Your task to perform on an android device: What's on my calendar today? Image 0: 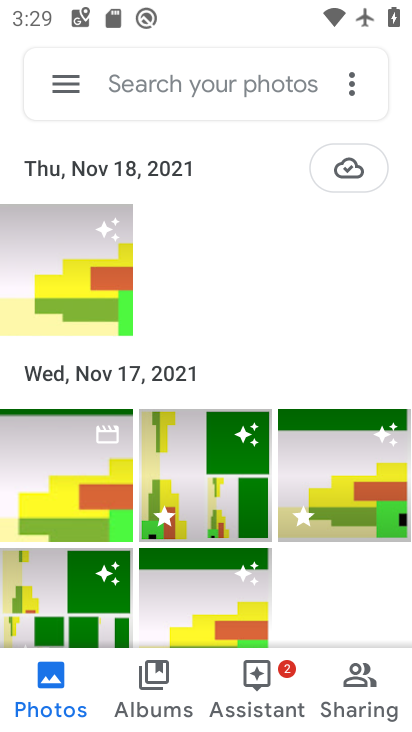
Step 0: press home button
Your task to perform on an android device: What's on my calendar today? Image 1: 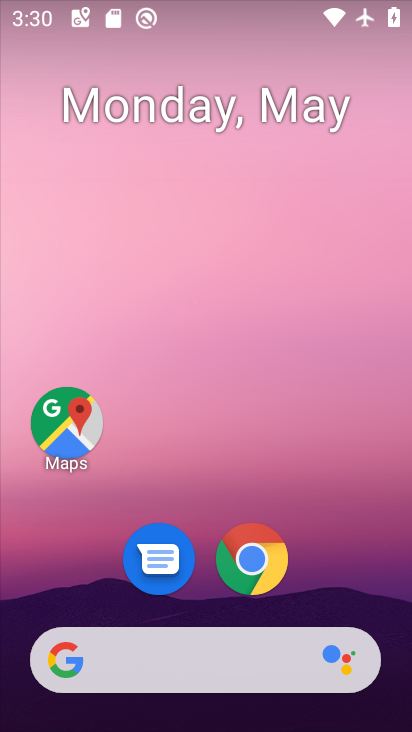
Step 1: drag from (300, 575) to (297, 95)
Your task to perform on an android device: What's on my calendar today? Image 2: 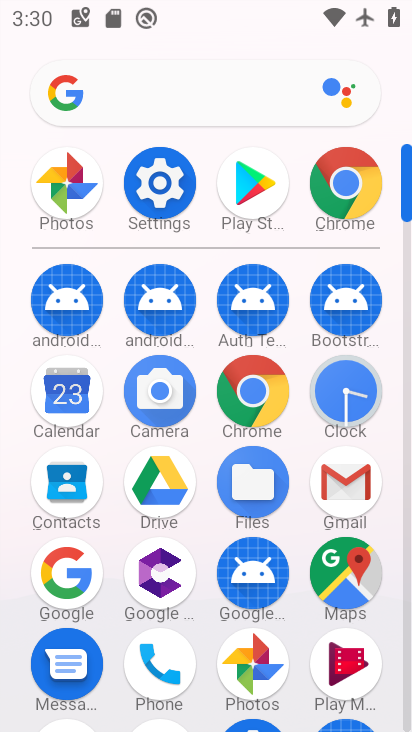
Step 2: click (71, 419)
Your task to perform on an android device: What's on my calendar today? Image 3: 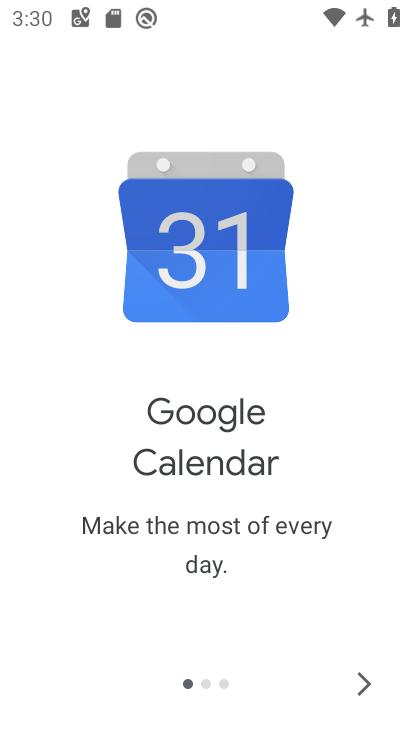
Step 3: click (370, 689)
Your task to perform on an android device: What's on my calendar today? Image 4: 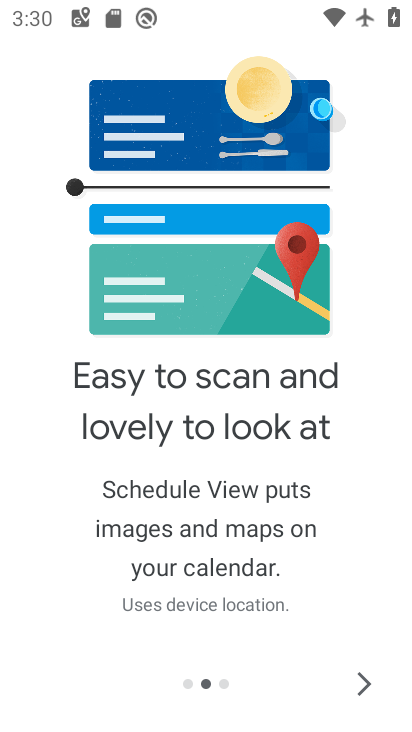
Step 4: click (369, 687)
Your task to perform on an android device: What's on my calendar today? Image 5: 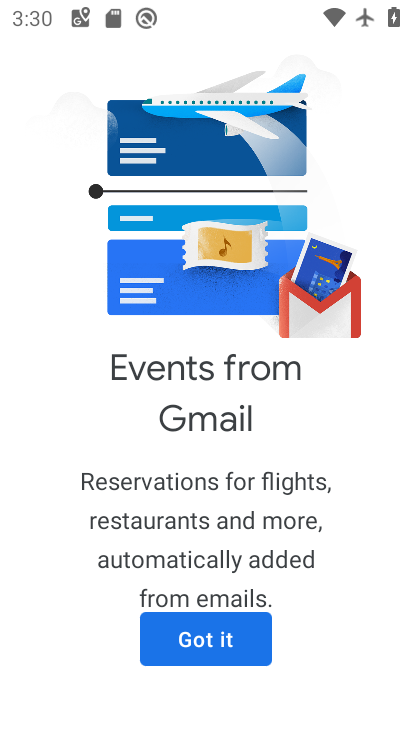
Step 5: click (188, 631)
Your task to perform on an android device: What's on my calendar today? Image 6: 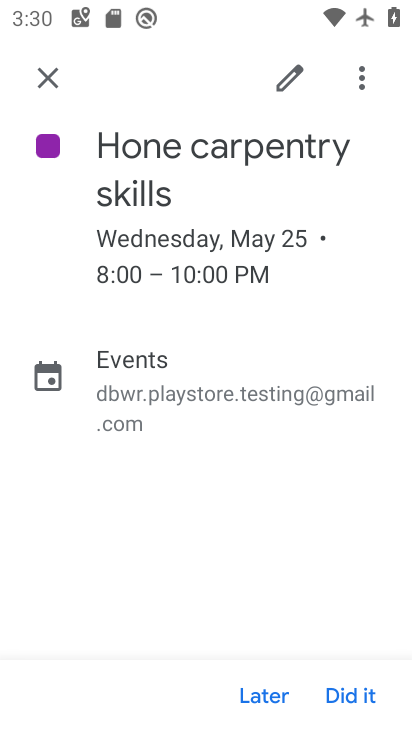
Step 6: click (55, 87)
Your task to perform on an android device: What's on my calendar today? Image 7: 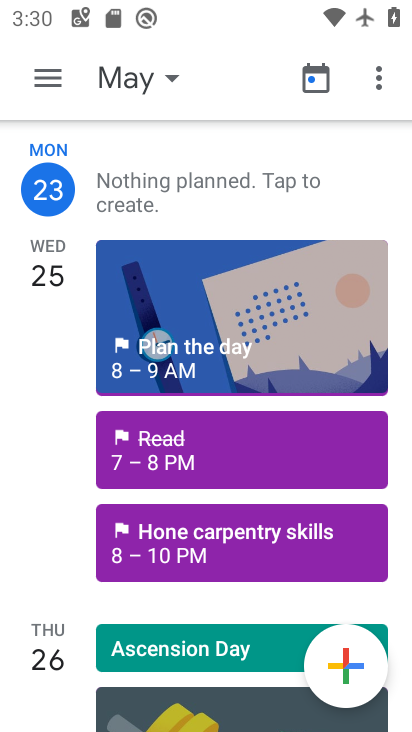
Step 7: task complete